Your task to perform on an android device: Search for the best deal on a 3d printer on aliexpress Image 0: 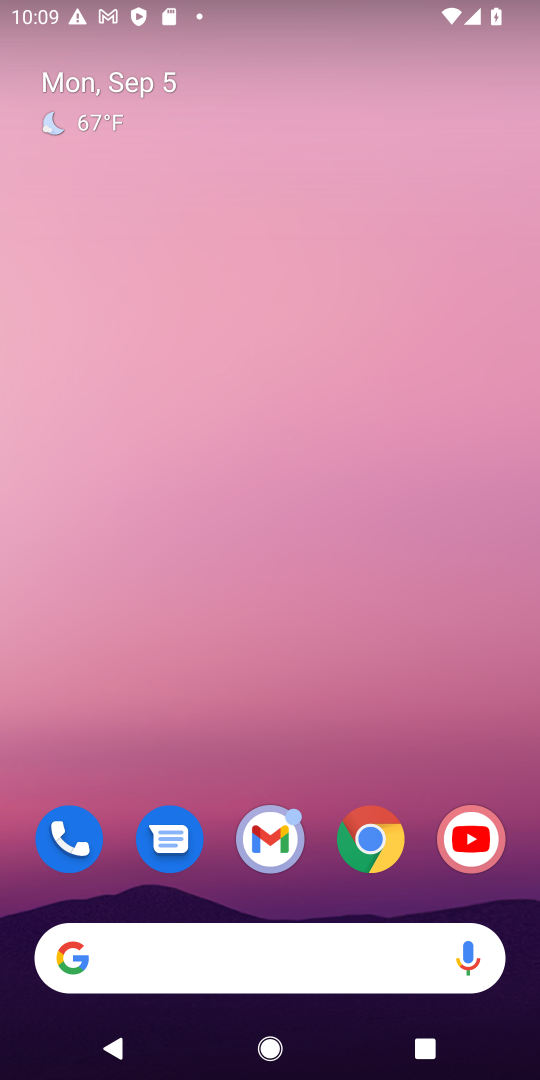
Step 0: drag from (266, 929) to (378, 248)
Your task to perform on an android device: Search for the best deal on a 3d printer on aliexpress Image 1: 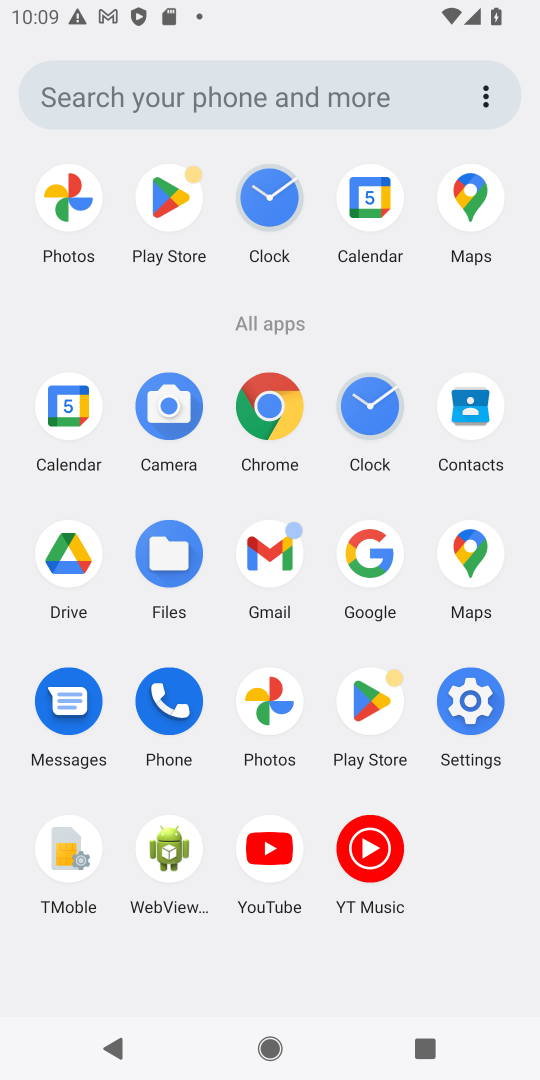
Step 1: click (353, 556)
Your task to perform on an android device: Search for the best deal on a 3d printer on aliexpress Image 2: 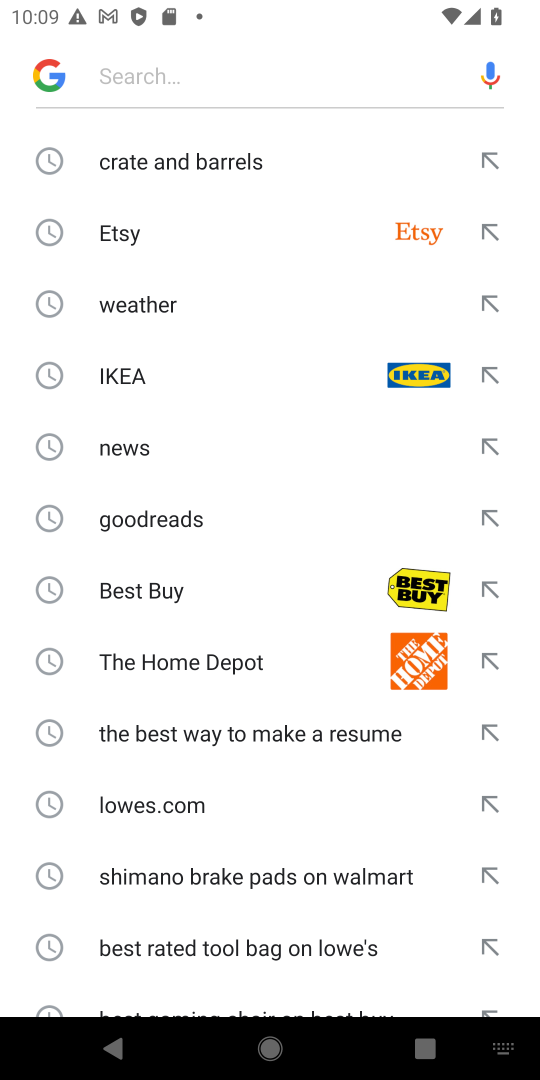
Step 2: type "aliexpress"
Your task to perform on an android device: Search for the best deal on a 3d printer on aliexpress Image 3: 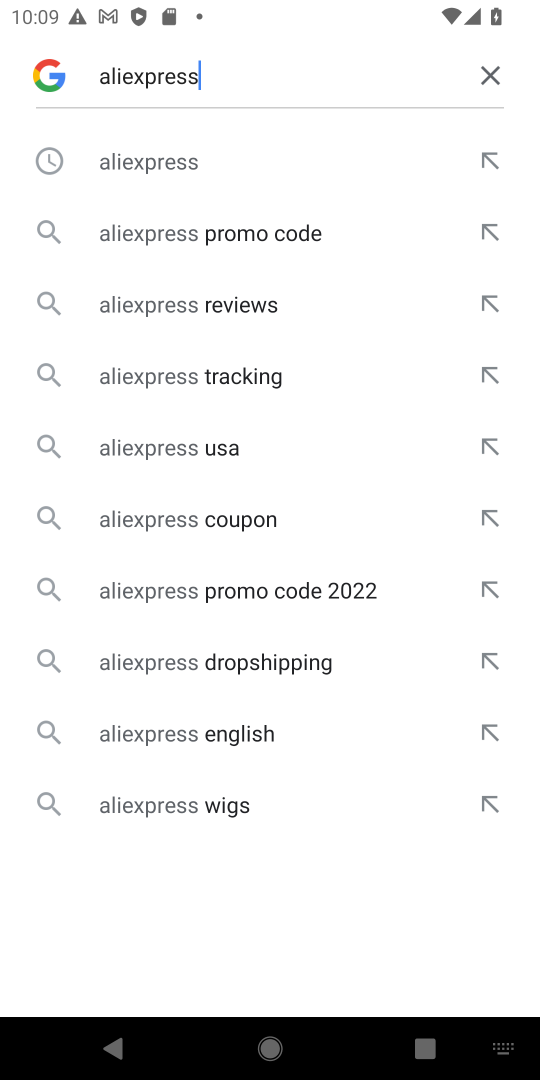
Step 3: click (181, 172)
Your task to perform on an android device: Search for the best deal on a 3d printer on aliexpress Image 4: 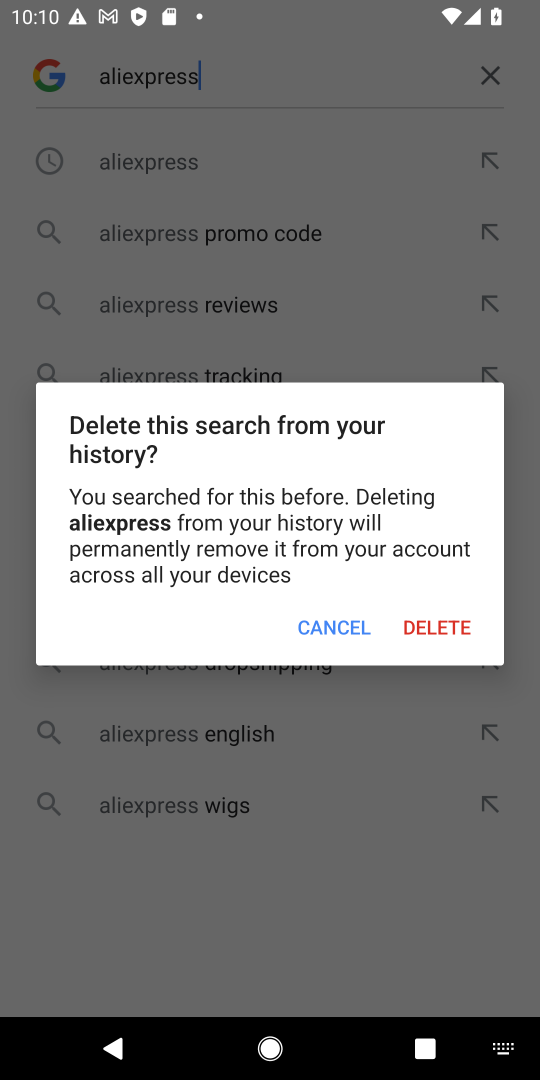
Step 4: click (328, 633)
Your task to perform on an android device: Search for the best deal on a 3d printer on aliexpress Image 5: 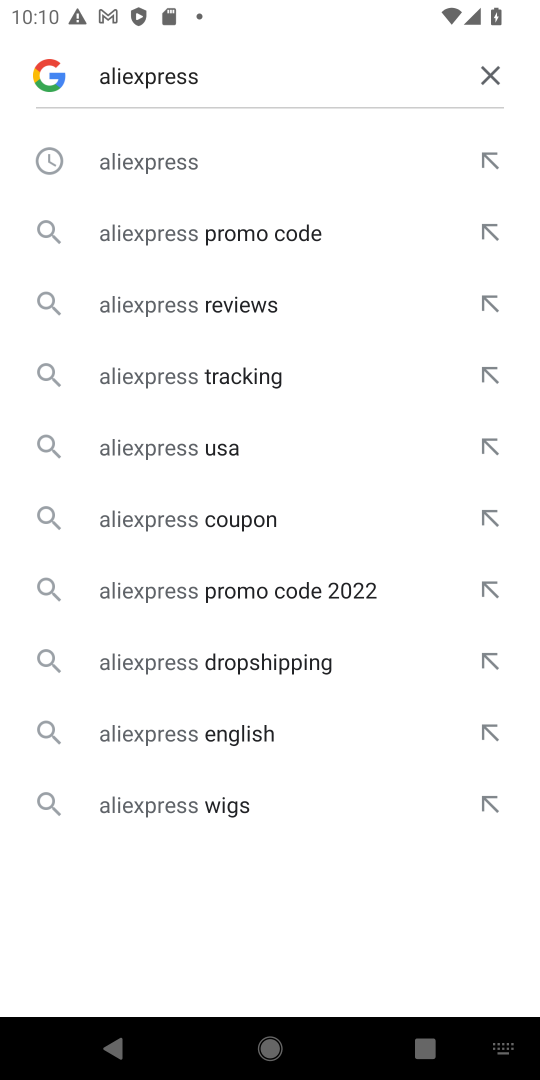
Step 5: click (145, 151)
Your task to perform on an android device: Search for the best deal on a 3d printer on aliexpress Image 6: 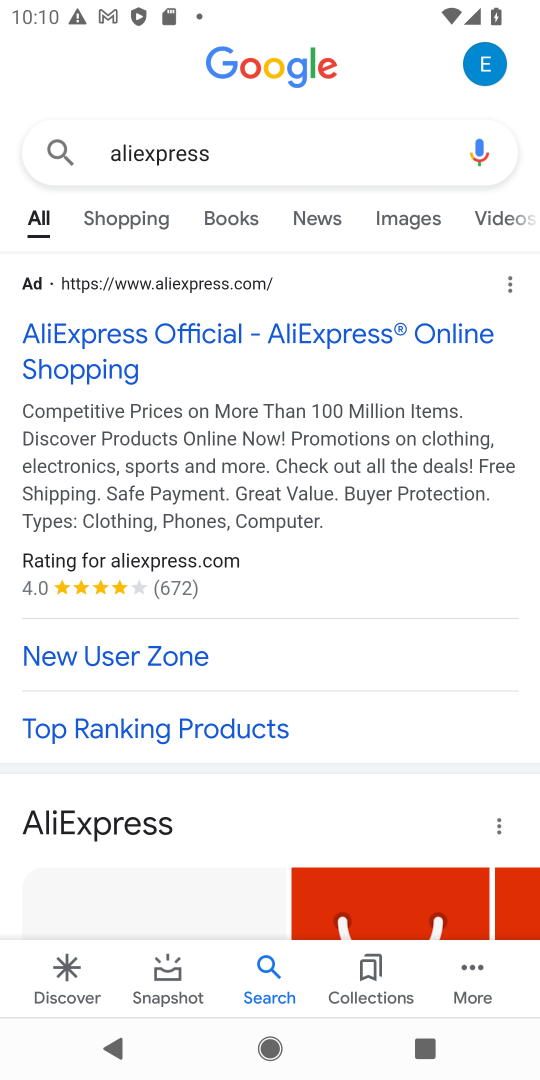
Step 6: click (105, 336)
Your task to perform on an android device: Search for the best deal on a 3d printer on aliexpress Image 7: 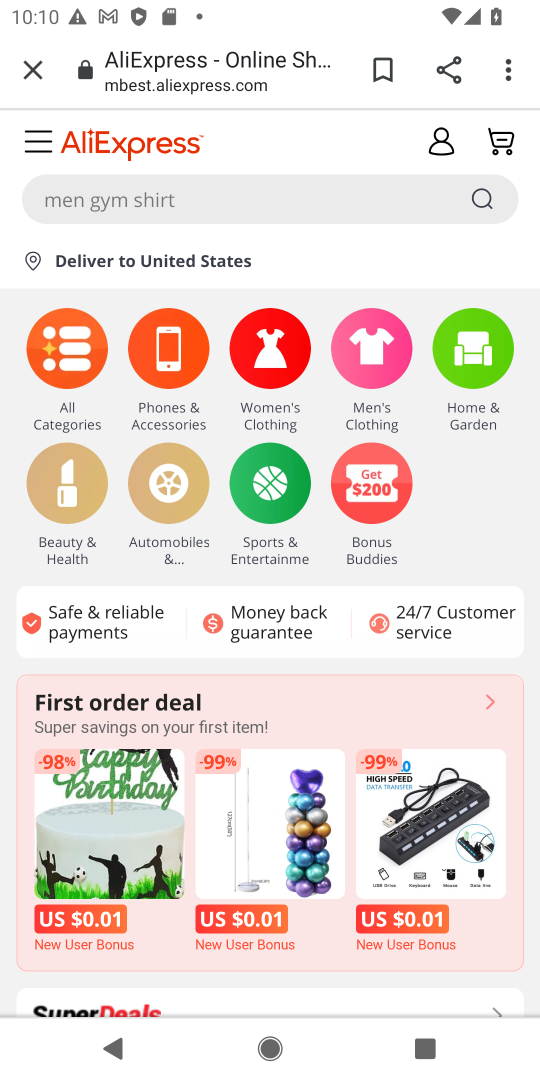
Step 7: click (186, 204)
Your task to perform on an android device: Search for the best deal on a 3d printer on aliexpress Image 8: 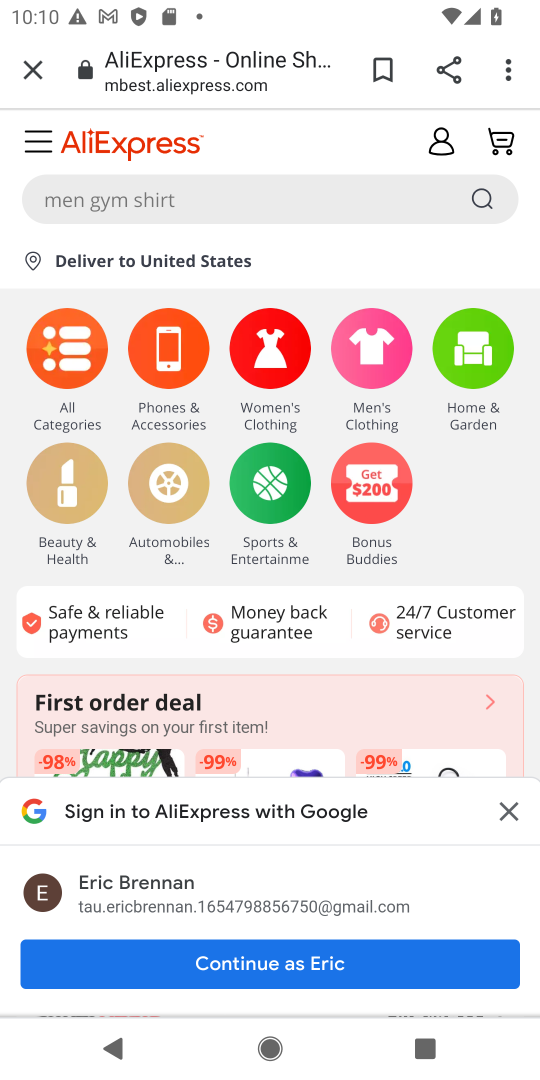
Step 8: click (100, 207)
Your task to perform on an android device: Search for the best deal on a 3d printer on aliexpress Image 9: 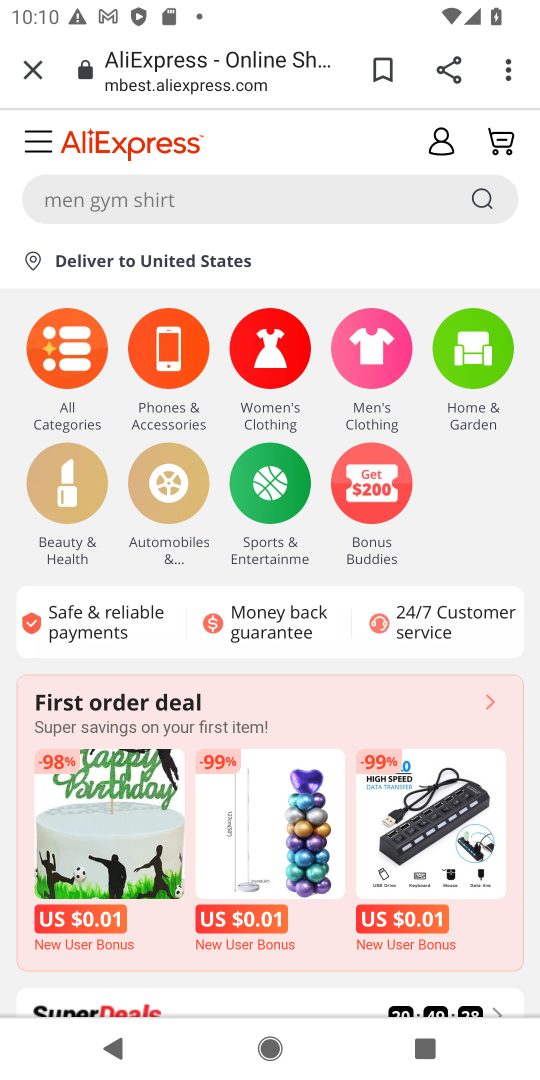
Step 9: click (478, 201)
Your task to perform on an android device: Search for the best deal on a 3d printer on aliexpress Image 10: 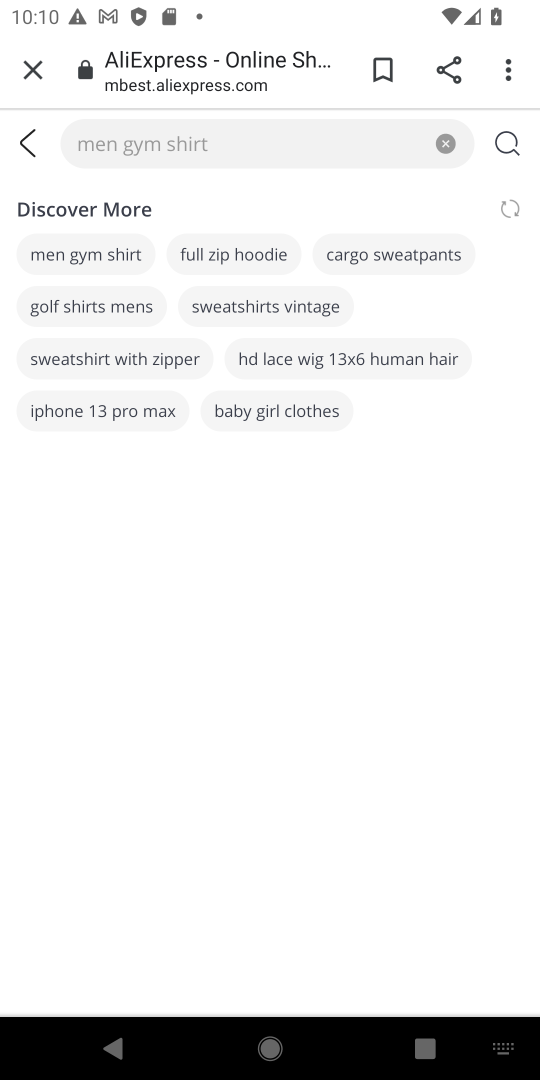
Step 10: type "best deal on a 3d printer "
Your task to perform on an android device: Search for the best deal on a 3d printer on aliexpress Image 11: 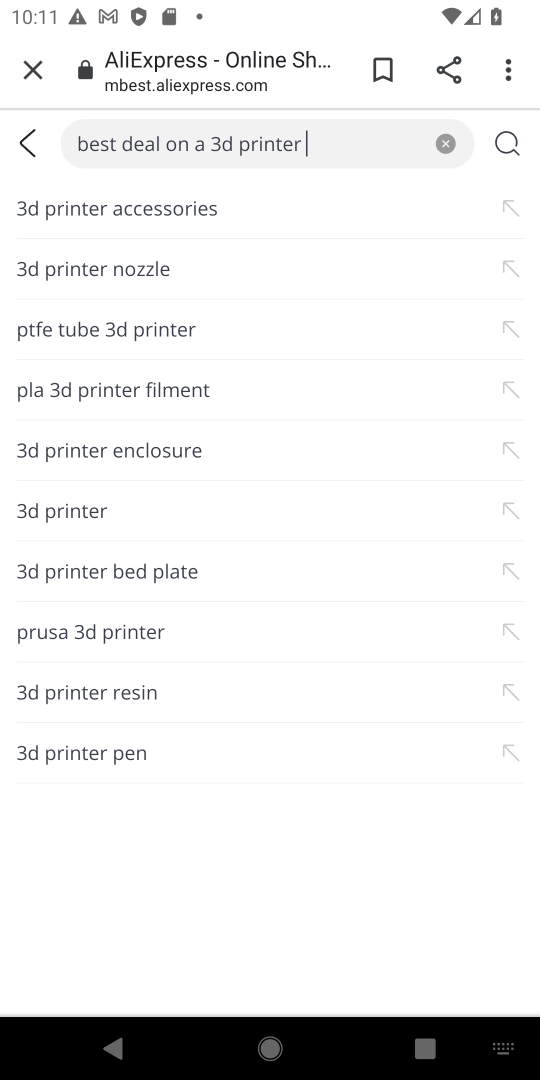
Step 11: click (147, 216)
Your task to perform on an android device: Search for the best deal on a 3d printer on aliexpress Image 12: 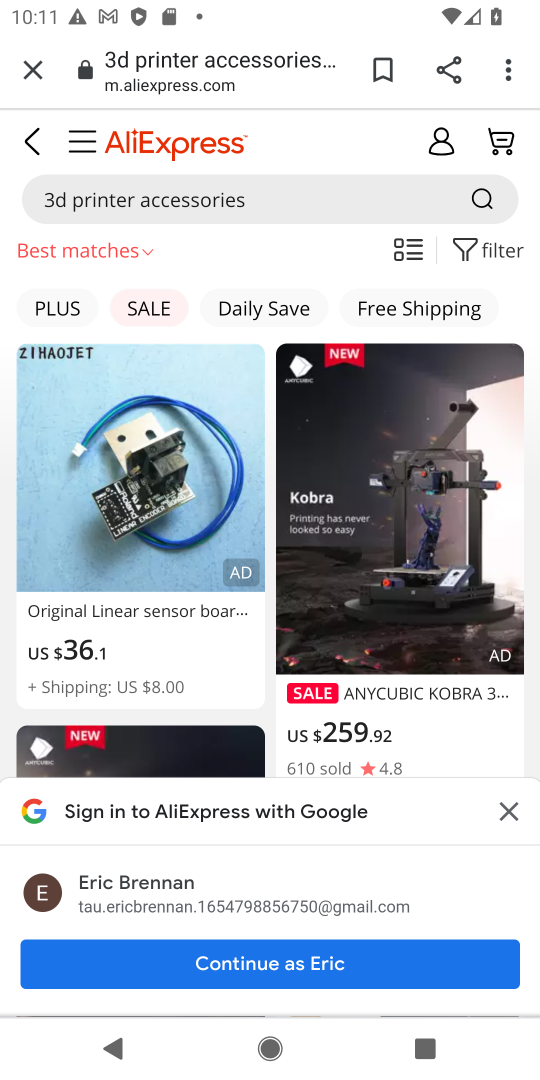
Step 12: drag from (356, 851) to (356, 350)
Your task to perform on an android device: Search for the best deal on a 3d printer on aliexpress Image 13: 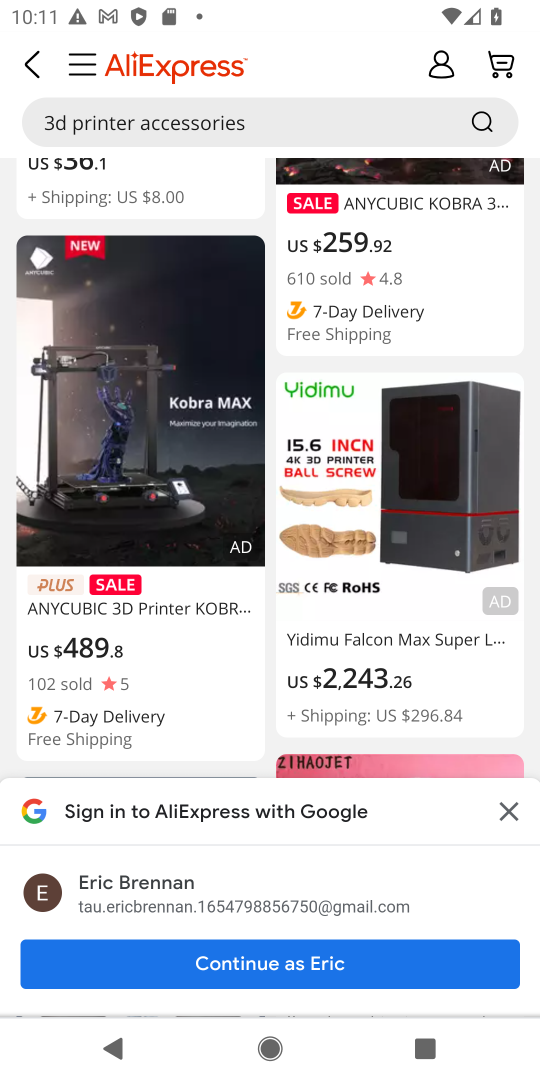
Step 13: click (505, 811)
Your task to perform on an android device: Search for the best deal on a 3d printer on aliexpress Image 14: 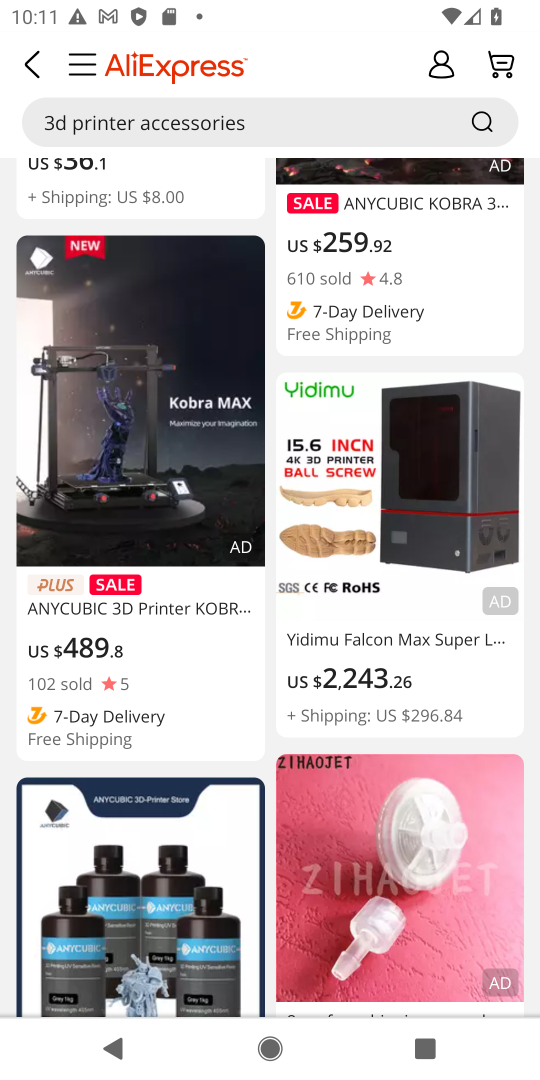
Step 14: task complete